Your task to perform on an android device: open app "Upside-Cash back on gas & food" (install if not already installed) and go to login screen Image 0: 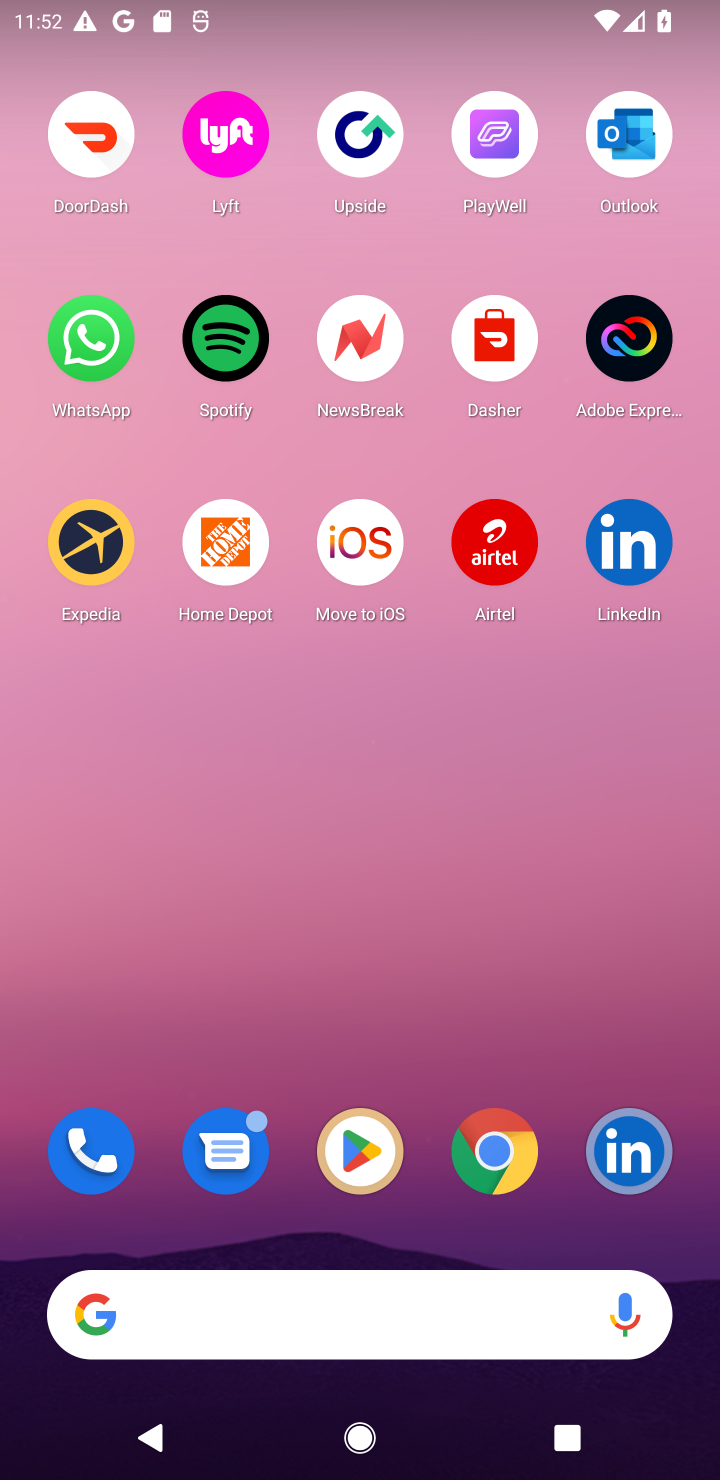
Step 0: click (378, 1156)
Your task to perform on an android device: open app "Upside-Cash back on gas & food" (install if not already installed) and go to login screen Image 1: 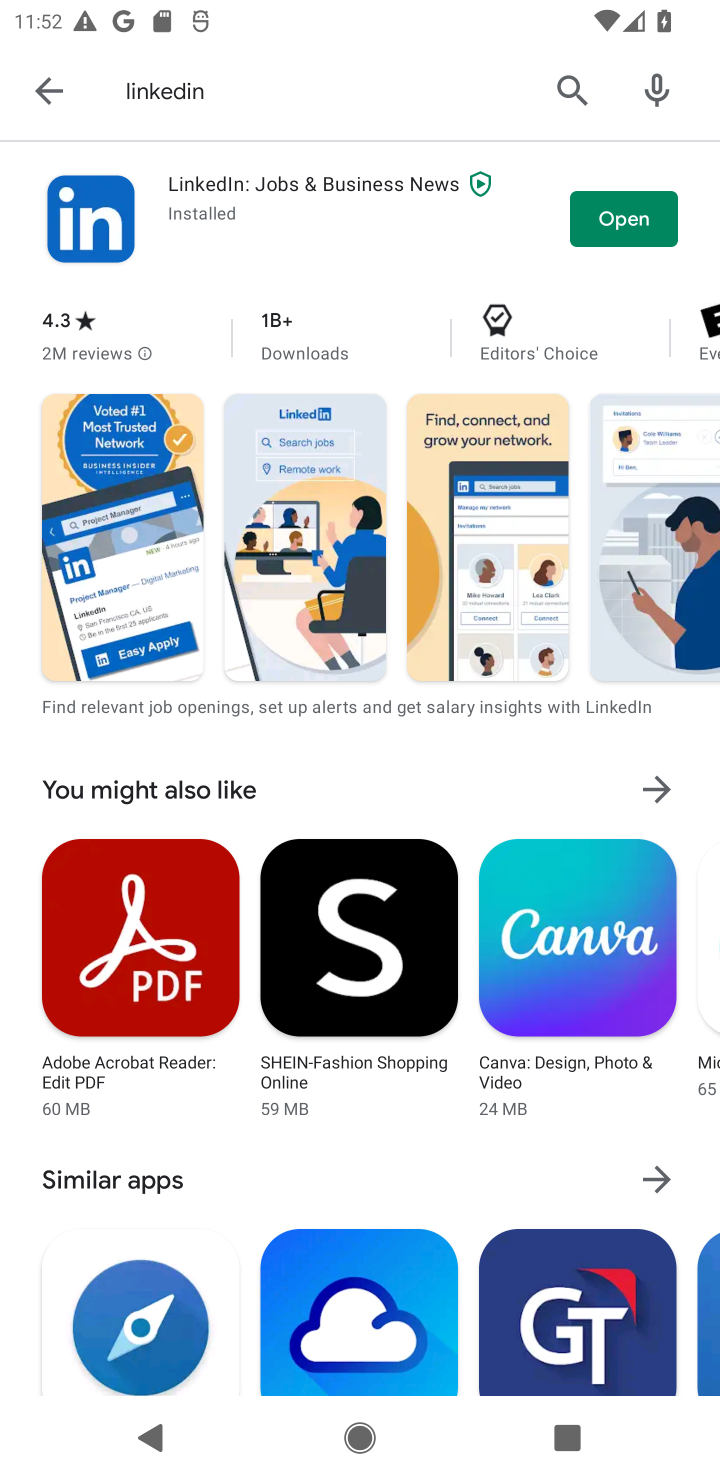
Step 1: click (564, 88)
Your task to perform on an android device: open app "Upside-Cash back on gas & food" (install if not already installed) and go to login screen Image 2: 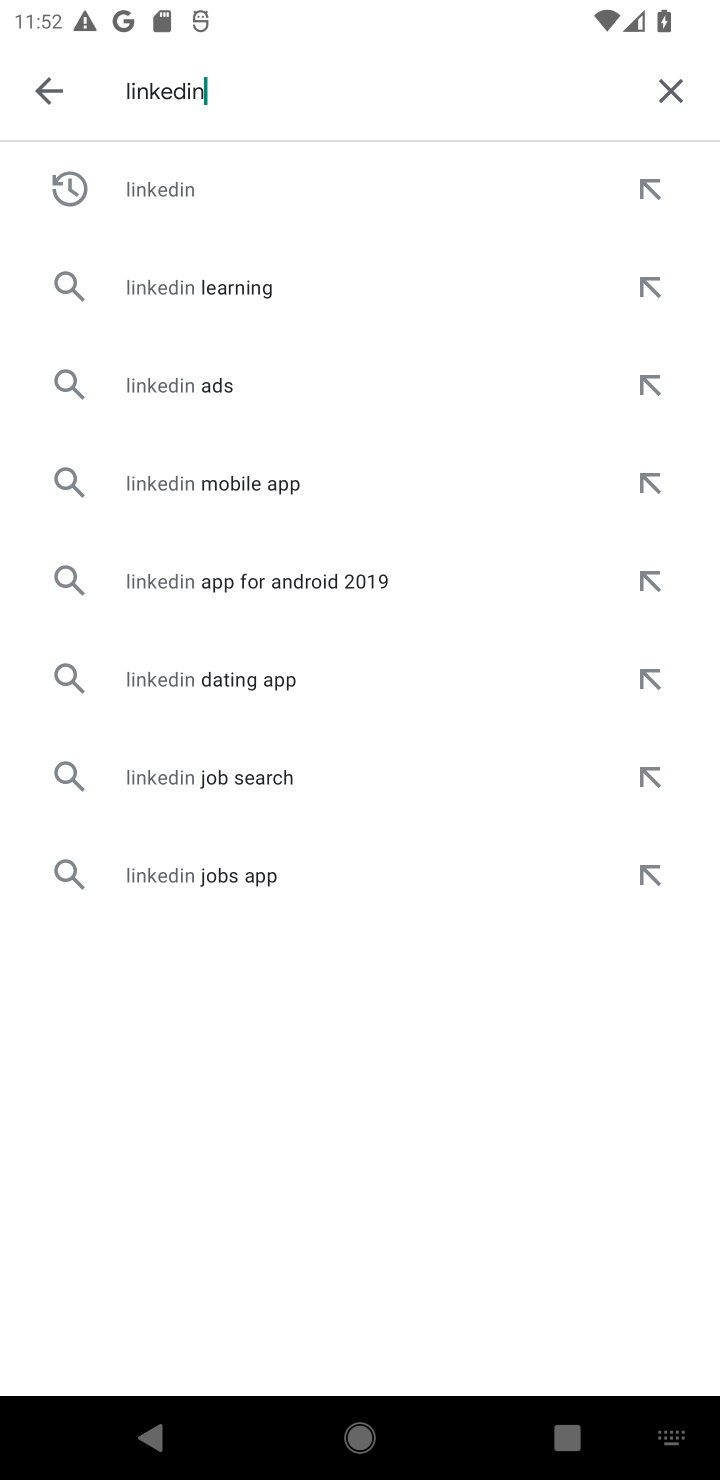
Step 2: click (651, 86)
Your task to perform on an android device: open app "Upside-Cash back on gas & food" (install if not already installed) and go to login screen Image 3: 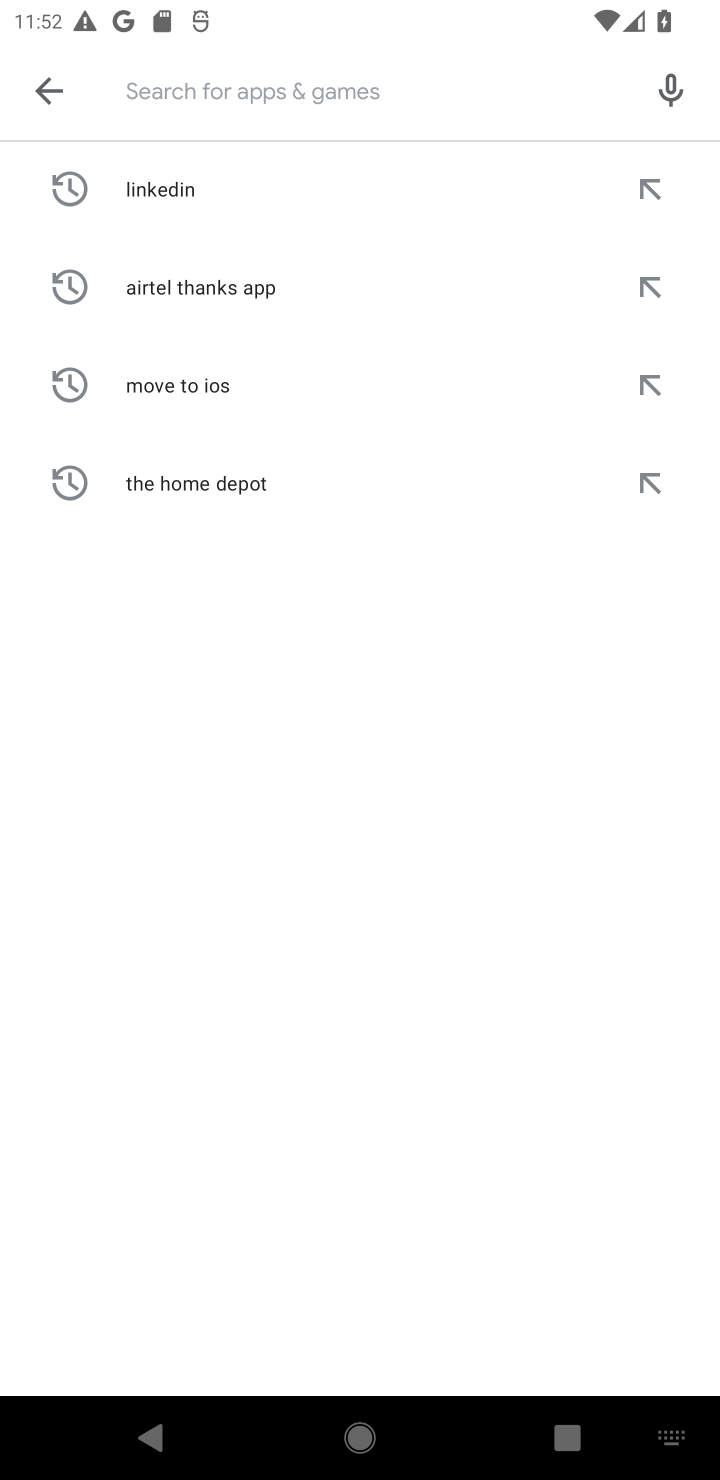
Step 3: type "Upside-Cash back on gas & food"
Your task to perform on an android device: open app "Upside-Cash back on gas & food" (install if not already installed) and go to login screen Image 4: 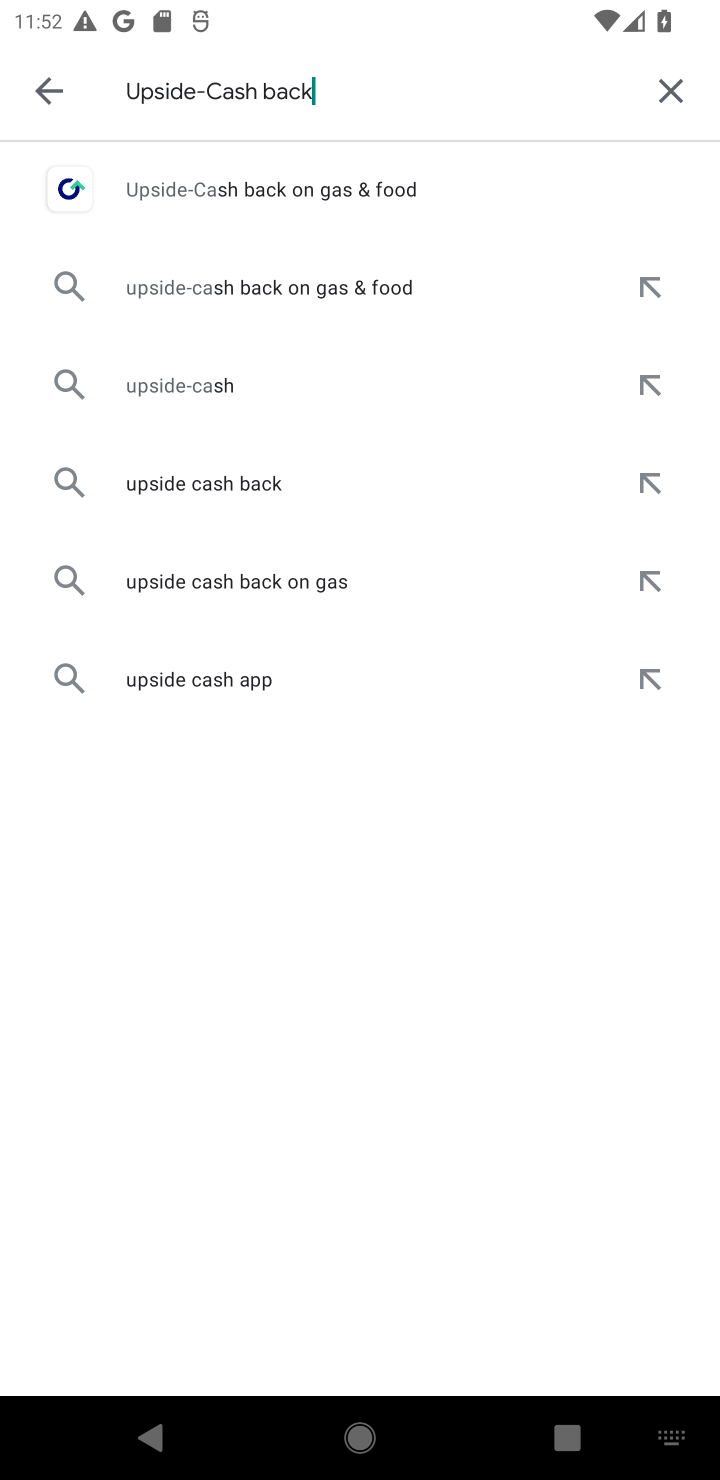
Step 4: type ""
Your task to perform on an android device: open app "Upside-Cash back on gas & food" (install if not already installed) and go to login screen Image 5: 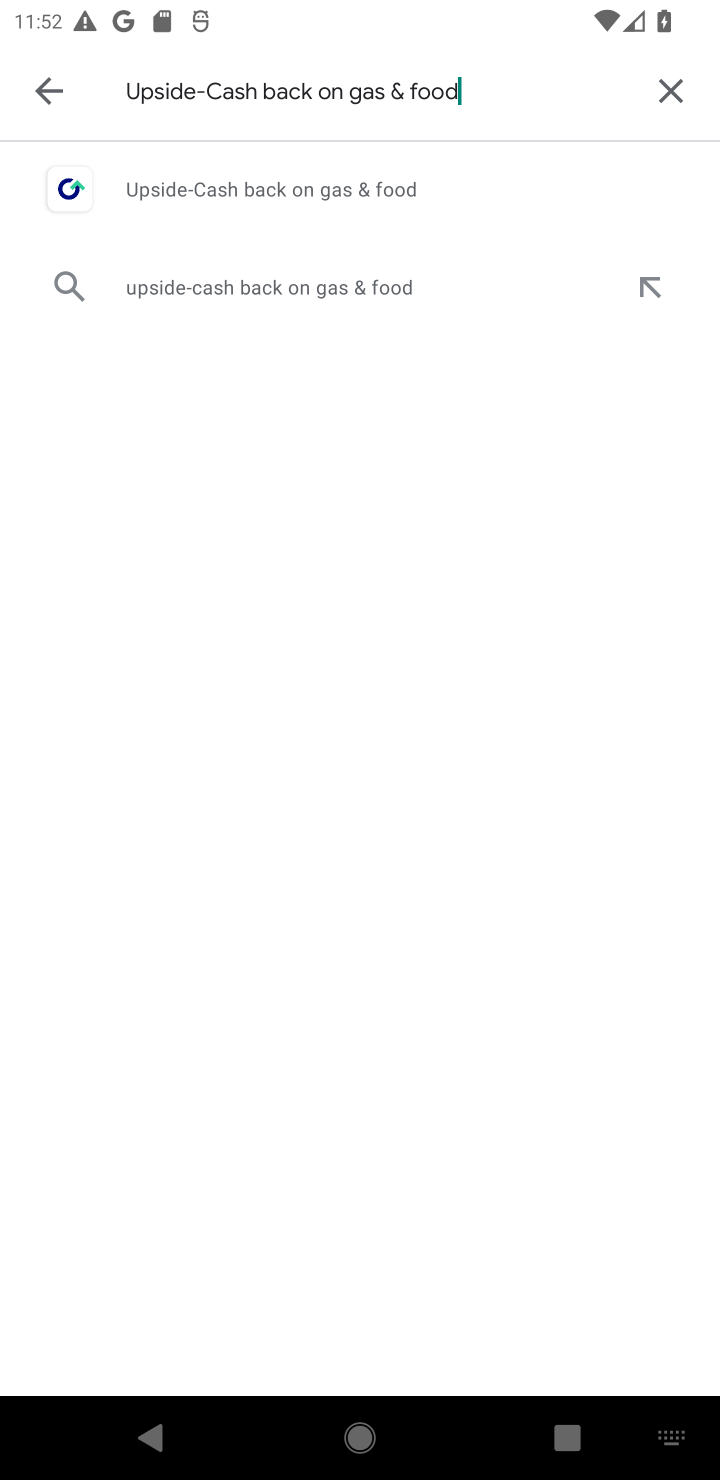
Step 5: click (227, 169)
Your task to perform on an android device: open app "Upside-Cash back on gas & food" (install if not already installed) and go to login screen Image 6: 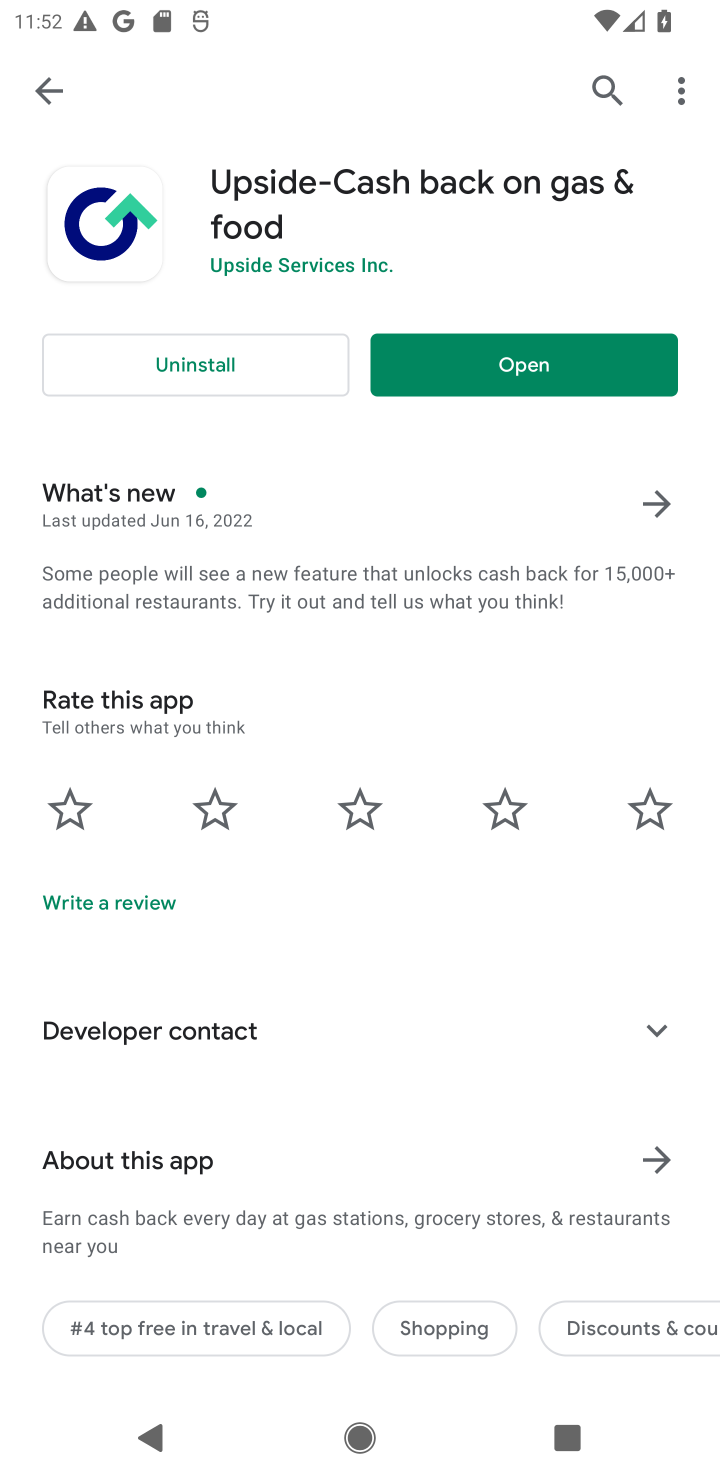
Step 6: click (493, 350)
Your task to perform on an android device: open app "Upside-Cash back on gas & food" (install if not already installed) and go to login screen Image 7: 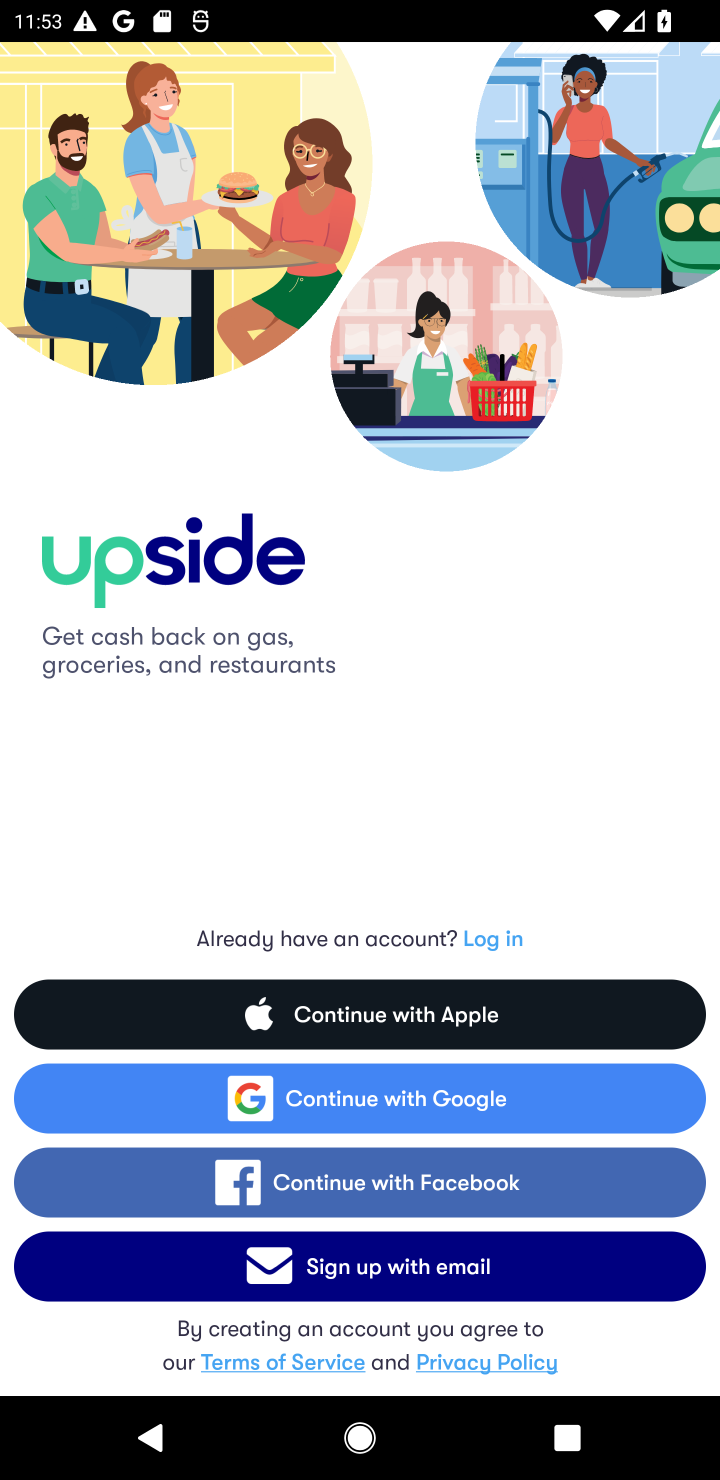
Step 7: task complete